Your task to perform on an android device: Open the stopwatch Image 0: 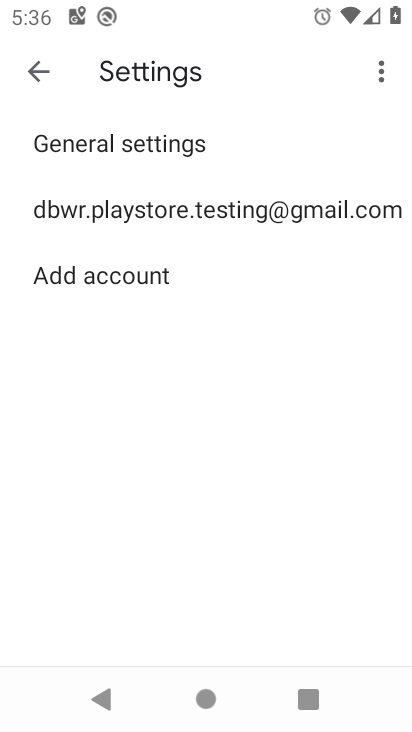
Step 0: press home button
Your task to perform on an android device: Open the stopwatch Image 1: 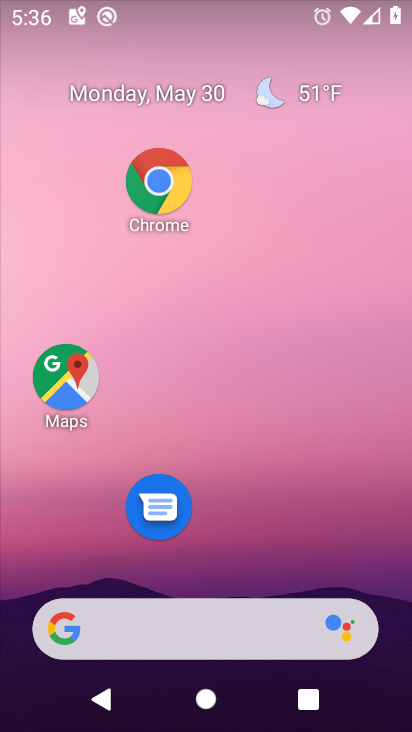
Step 1: drag from (257, 530) to (273, 38)
Your task to perform on an android device: Open the stopwatch Image 2: 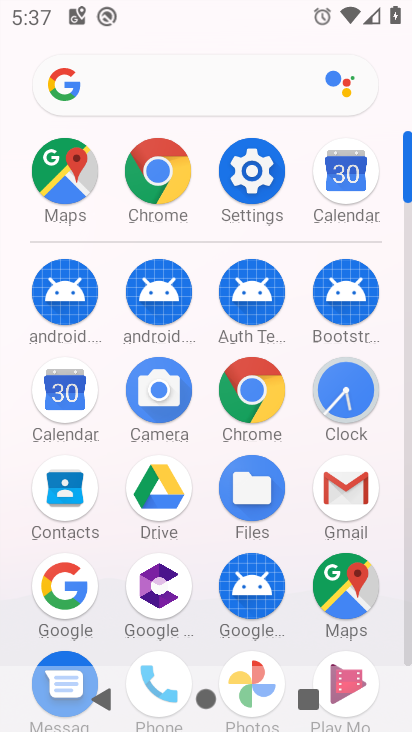
Step 2: click (410, 602)
Your task to perform on an android device: Open the stopwatch Image 3: 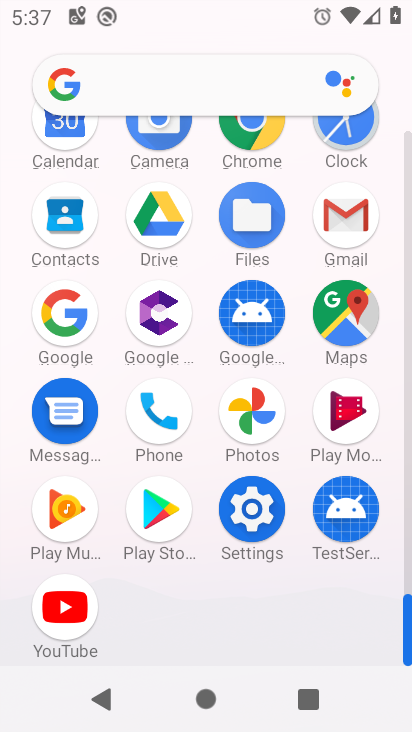
Step 3: click (402, 157)
Your task to perform on an android device: Open the stopwatch Image 4: 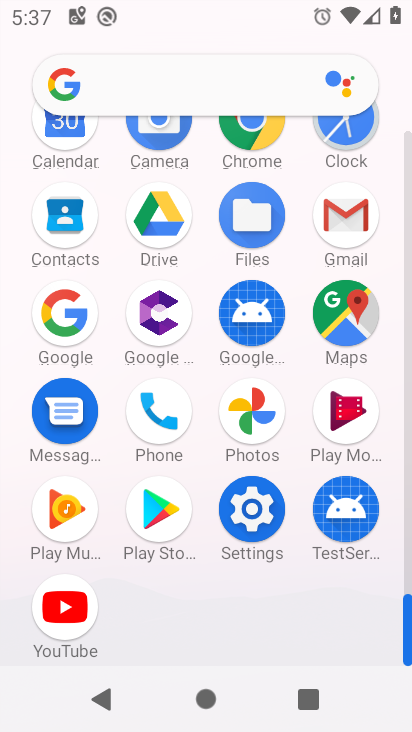
Step 4: click (409, 184)
Your task to perform on an android device: Open the stopwatch Image 5: 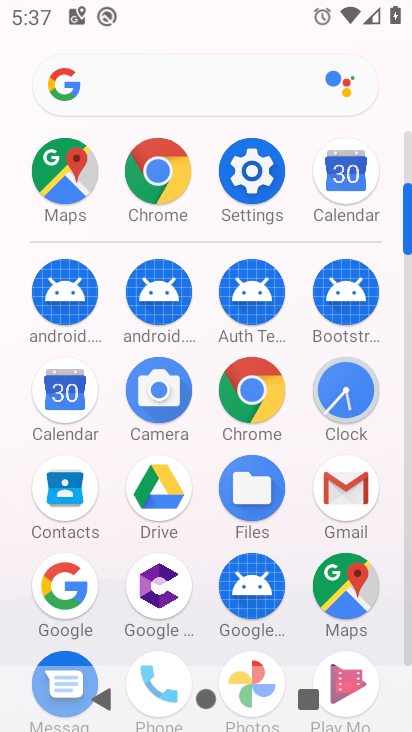
Step 5: click (341, 403)
Your task to perform on an android device: Open the stopwatch Image 6: 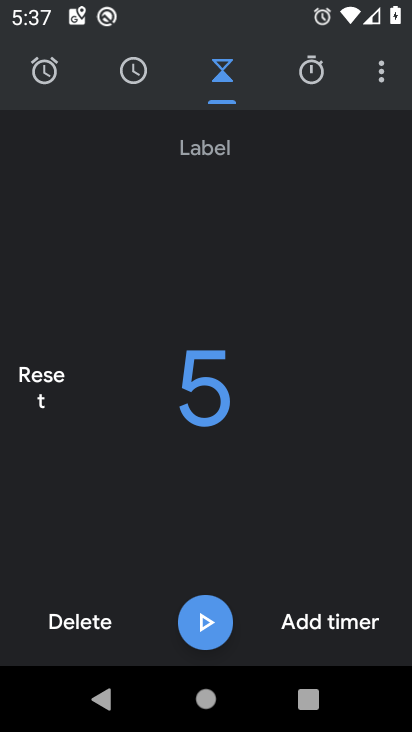
Step 6: click (296, 74)
Your task to perform on an android device: Open the stopwatch Image 7: 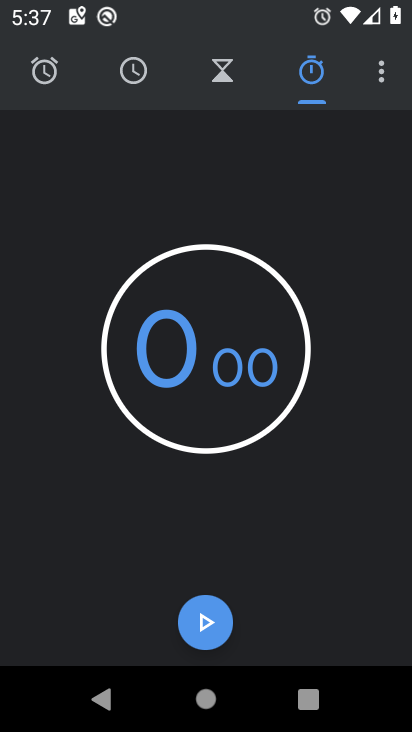
Step 7: task complete